Your task to perform on an android device: show emergency info Image 0: 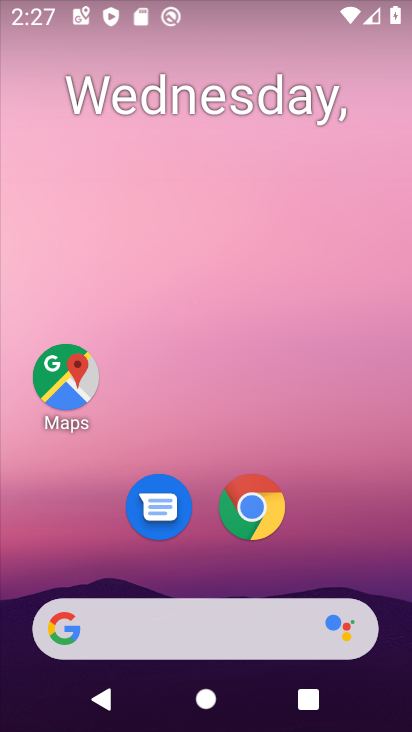
Step 0: drag from (346, 551) to (279, 207)
Your task to perform on an android device: show emergency info Image 1: 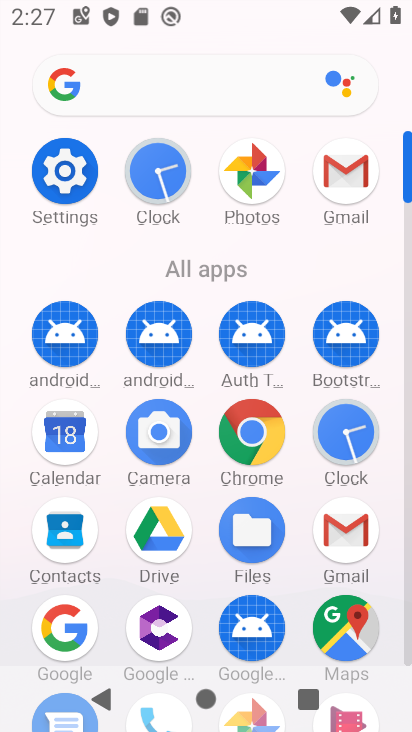
Step 1: click (66, 175)
Your task to perform on an android device: show emergency info Image 2: 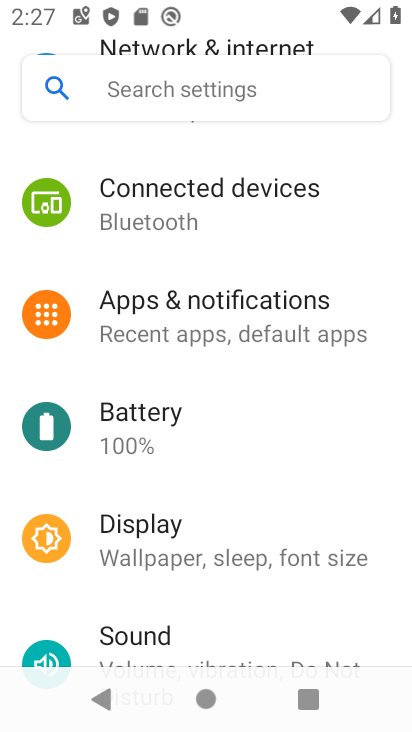
Step 2: drag from (269, 555) to (258, 176)
Your task to perform on an android device: show emergency info Image 3: 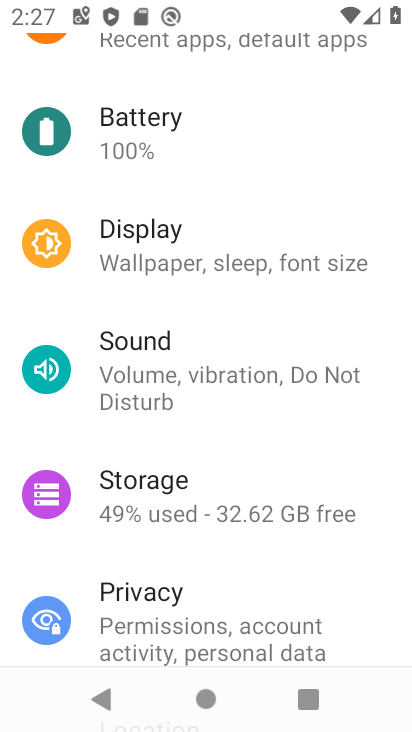
Step 3: drag from (267, 517) to (277, 289)
Your task to perform on an android device: show emergency info Image 4: 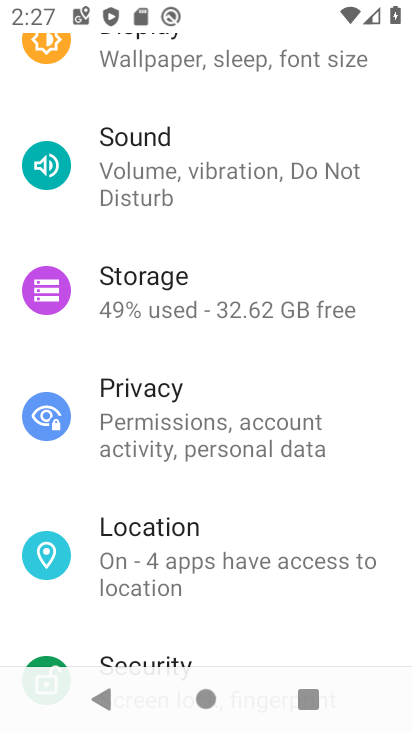
Step 4: drag from (231, 573) to (266, 298)
Your task to perform on an android device: show emergency info Image 5: 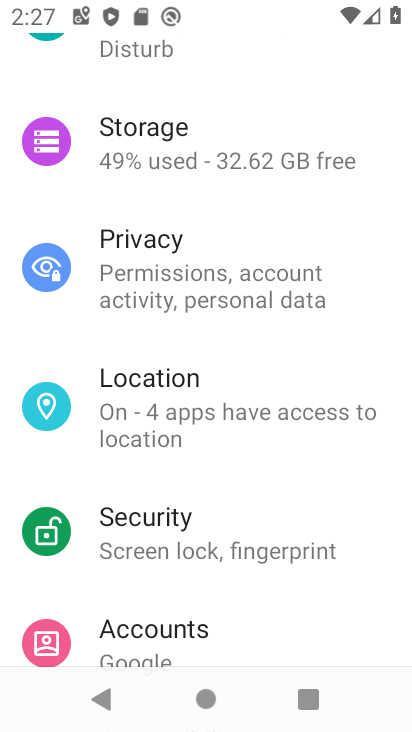
Step 5: drag from (274, 537) to (274, 171)
Your task to perform on an android device: show emergency info Image 6: 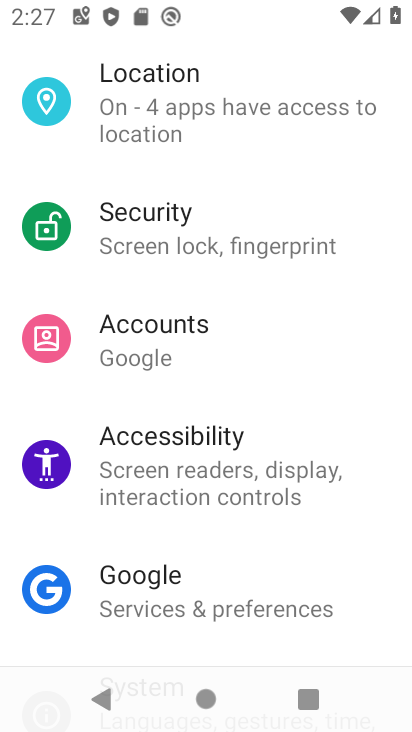
Step 6: drag from (245, 496) to (262, 159)
Your task to perform on an android device: show emergency info Image 7: 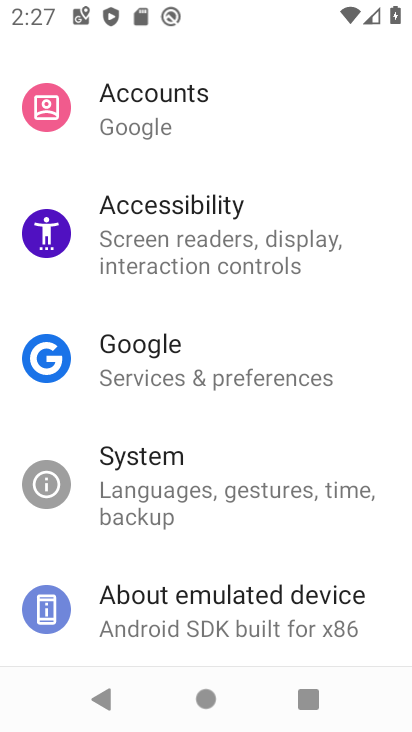
Step 7: drag from (256, 560) to (257, 185)
Your task to perform on an android device: show emergency info Image 8: 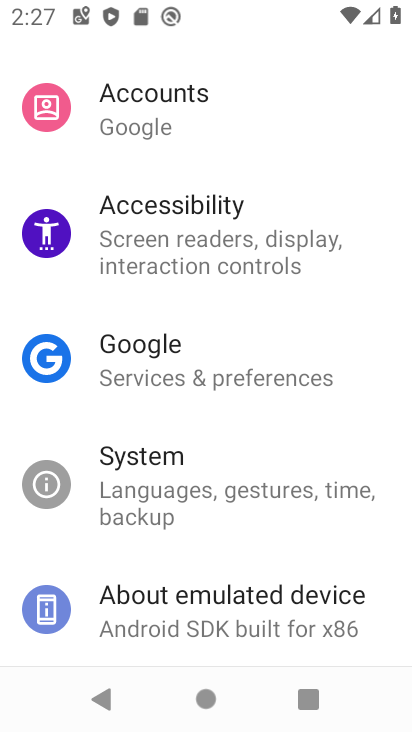
Step 8: click (215, 606)
Your task to perform on an android device: show emergency info Image 9: 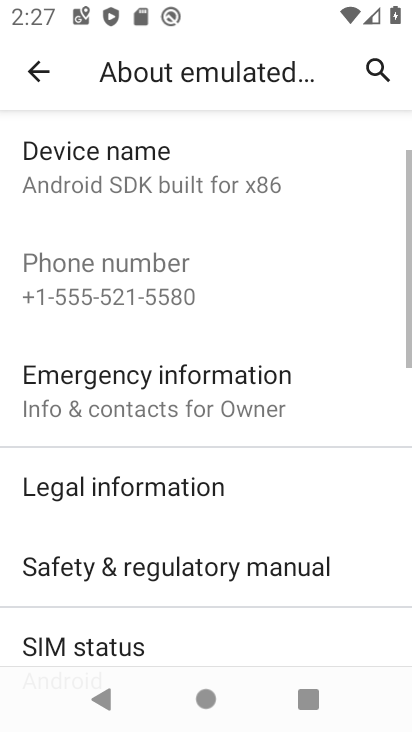
Step 9: drag from (277, 599) to (284, 425)
Your task to perform on an android device: show emergency info Image 10: 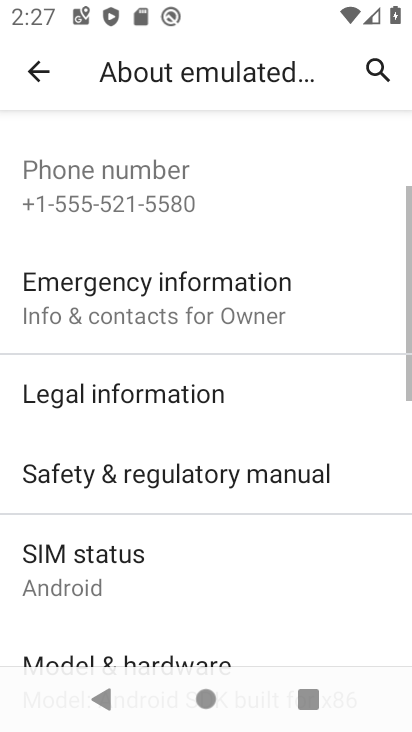
Step 10: drag from (241, 601) to (253, 401)
Your task to perform on an android device: show emergency info Image 11: 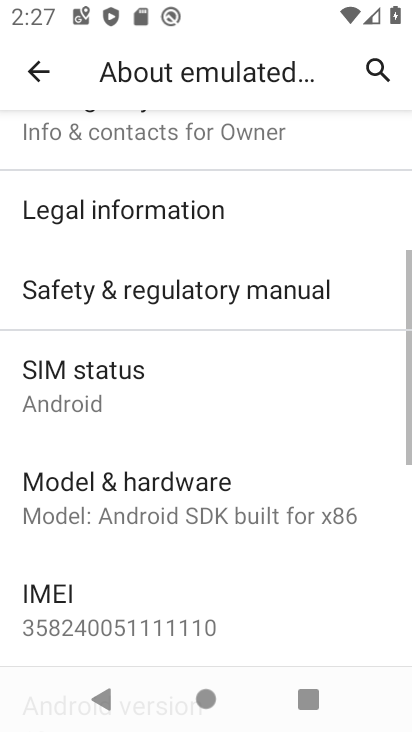
Step 11: drag from (224, 568) to (261, 310)
Your task to perform on an android device: show emergency info Image 12: 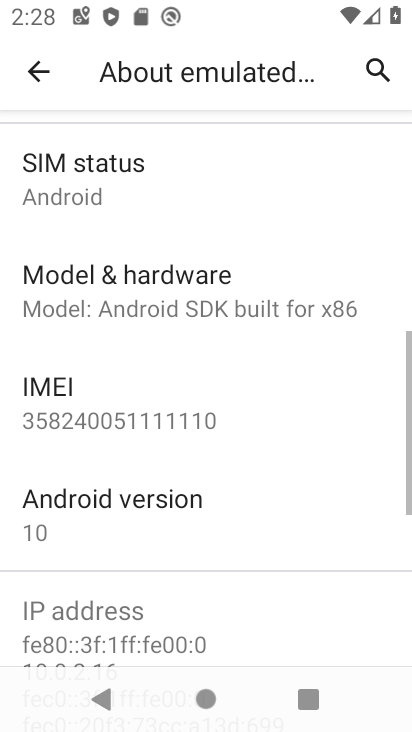
Step 12: drag from (196, 563) to (218, 291)
Your task to perform on an android device: show emergency info Image 13: 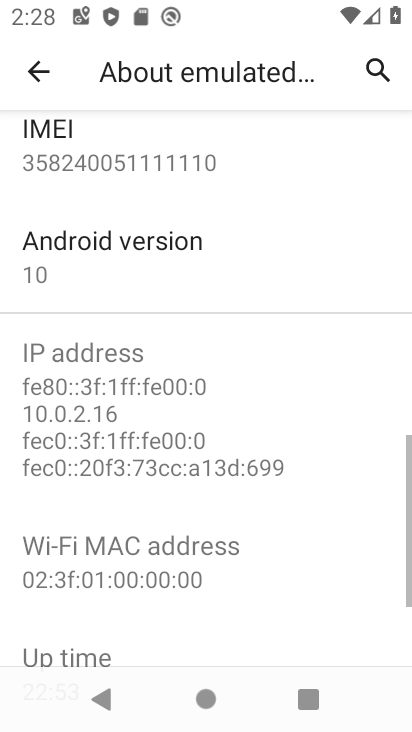
Step 13: drag from (203, 574) to (206, 250)
Your task to perform on an android device: show emergency info Image 14: 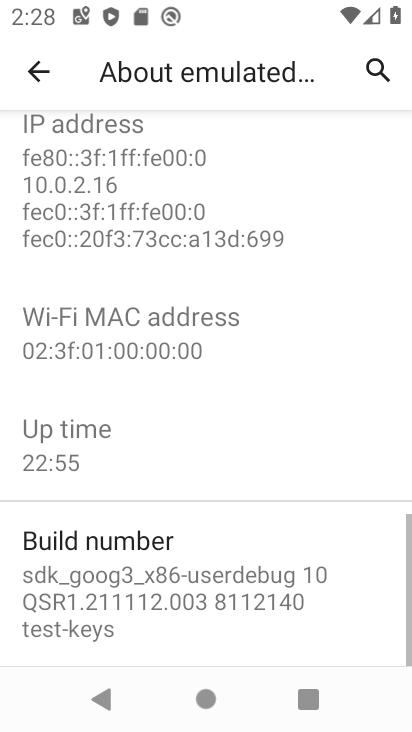
Step 14: drag from (254, 538) to (253, 291)
Your task to perform on an android device: show emergency info Image 15: 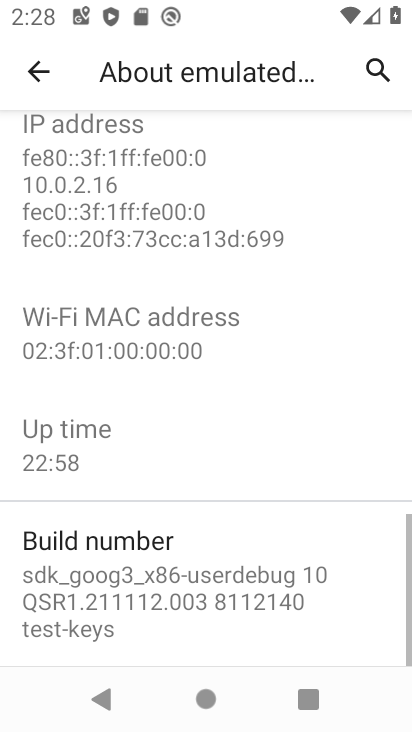
Step 15: press back button
Your task to perform on an android device: show emergency info Image 16: 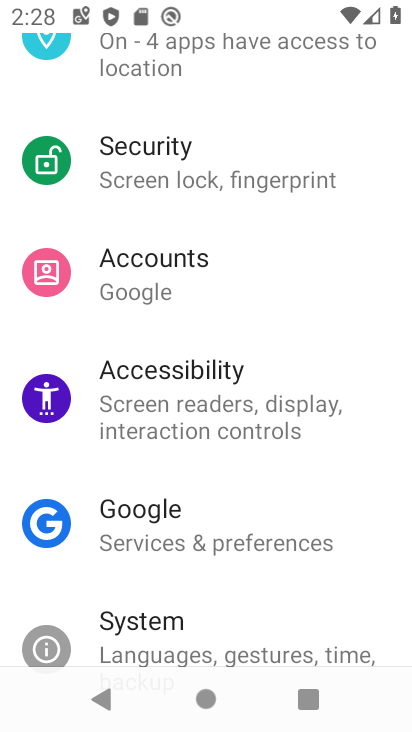
Step 16: drag from (281, 166) to (258, 488)
Your task to perform on an android device: show emergency info Image 17: 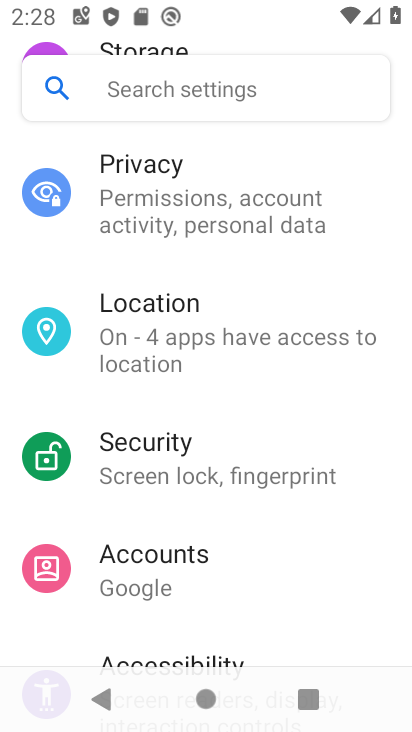
Step 17: click (217, 218)
Your task to perform on an android device: show emergency info Image 18: 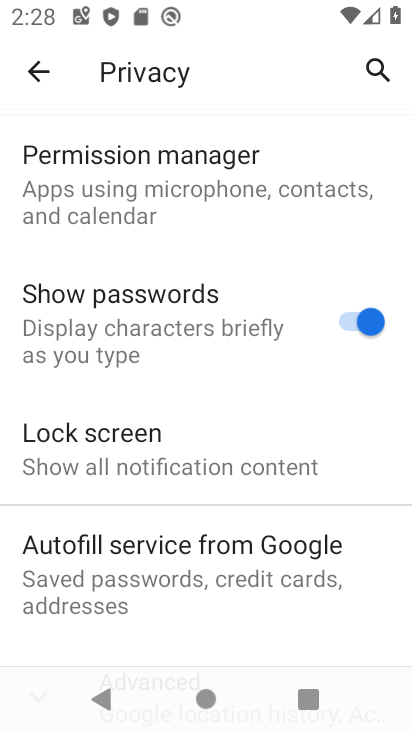
Step 18: drag from (216, 598) to (213, 163)
Your task to perform on an android device: show emergency info Image 19: 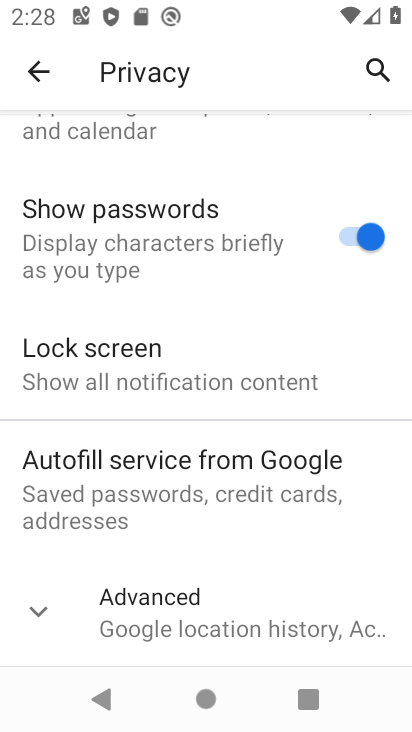
Step 19: click (167, 603)
Your task to perform on an android device: show emergency info Image 20: 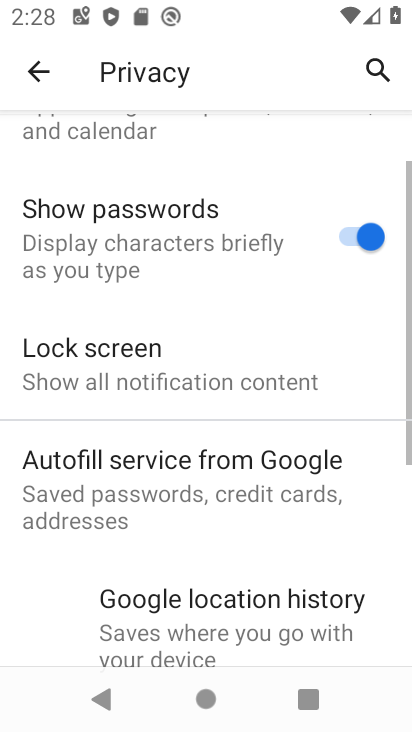
Step 20: task complete